Your task to perform on an android device: clear all cookies in the chrome app Image 0: 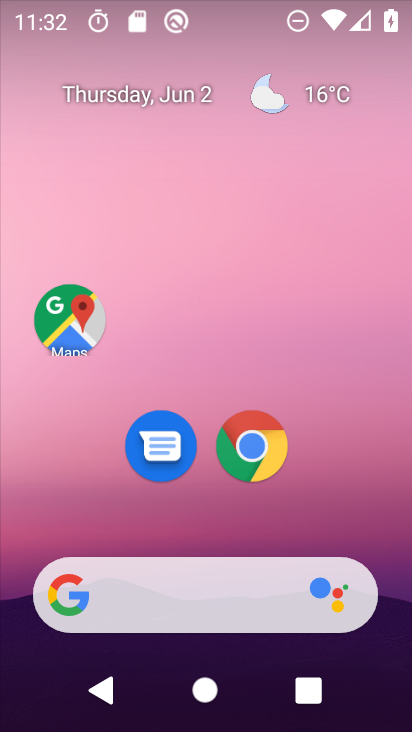
Step 0: drag from (357, 497) to (334, 235)
Your task to perform on an android device: clear all cookies in the chrome app Image 1: 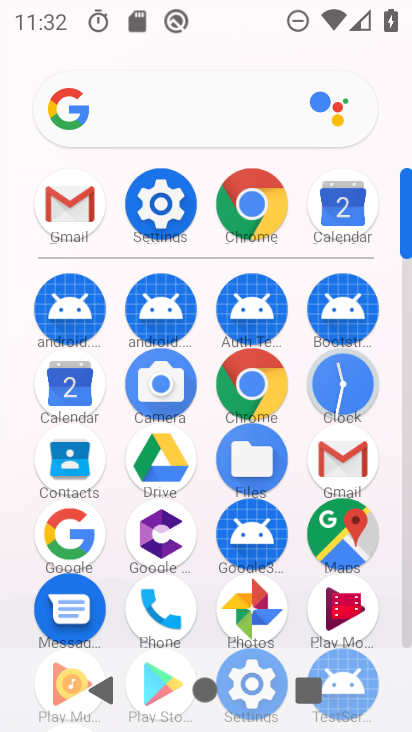
Step 1: click (258, 379)
Your task to perform on an android device: clear all cookies in the chrome app Image 2: 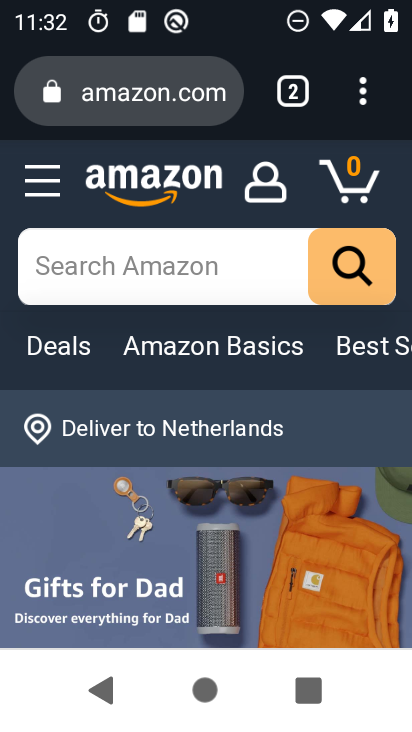
Step 2: click (362, 102)
Your task to perform on an android device: clear all cookies in the chrome app Image 3: 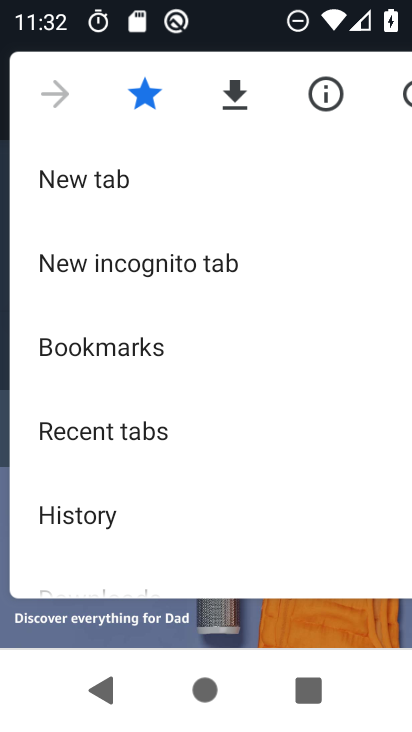
Step 3: drag from (307, 412) to (339, 304)
Your task to perform on an android device: clear all cookies in the chrome app Image 4: 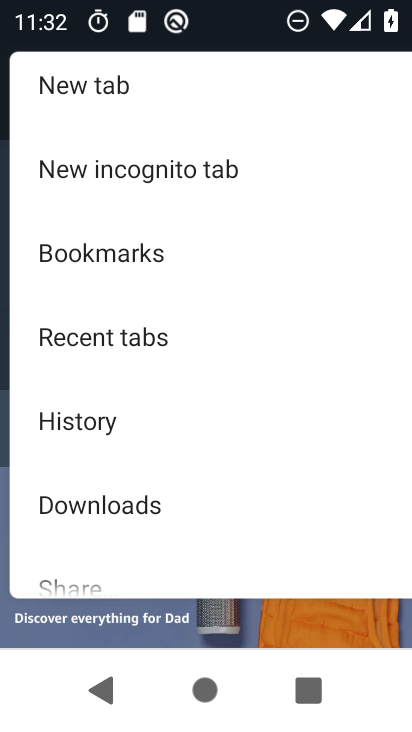
Step 4: drag from (342, 448) to (355, 344)
Your task to perform on an android device: clear all cookies in the chrome app Image 5: 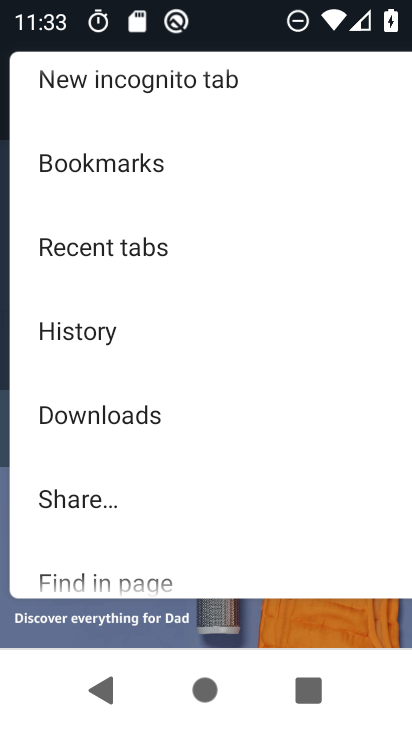
Step 5: drag from (323, 463) to (327, 343)
Your task to perform on an android device: clear all cookies in the chrome app Image 6: 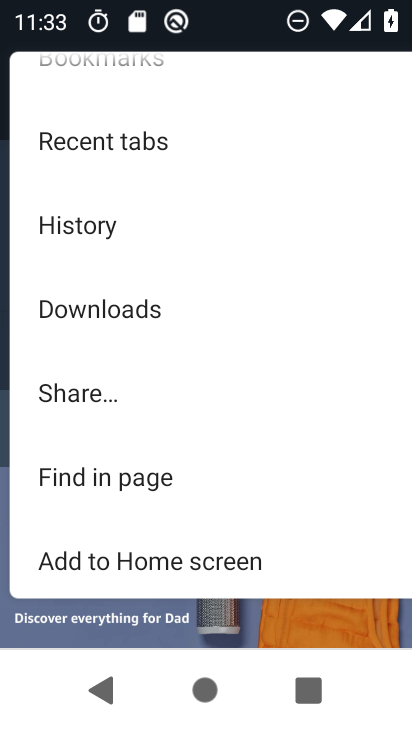
Step 6: drag from (315, 488) to (329, 199)
Your task to perform on an android device: clear all cookies in the chrome app Image 7: 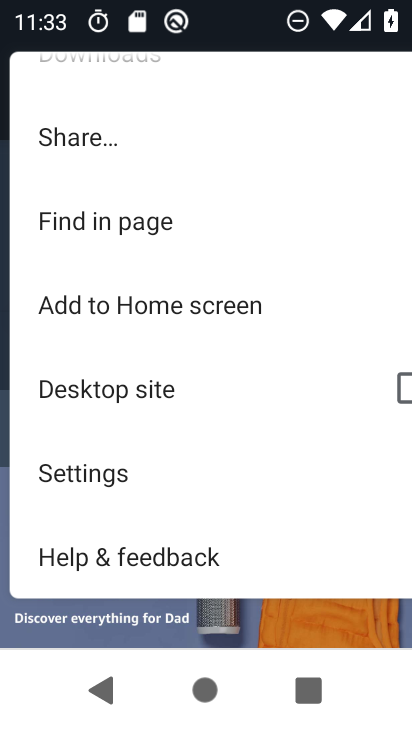
Step 7: click (125, 481)
Your task to perform on an android device: clear all cookies in the chrome app Image 8: 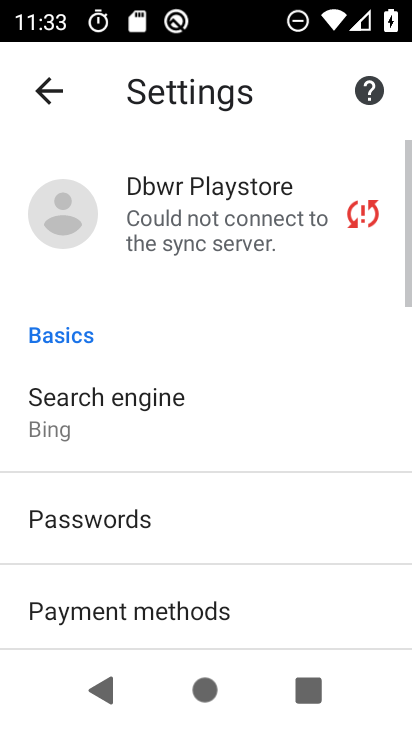
Step 8: drag from (262, 515) to (274, 367)
Your task to perform on an android device: clear all cookies in the chrome app Image 9: 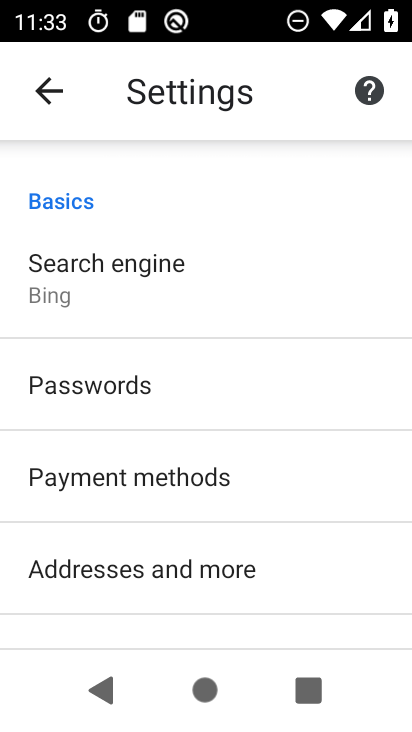
Step 9: drag from (297, 573) to (327, 414)
Your task to perform on an android device: clear all cookies in the chrome app Image 10: 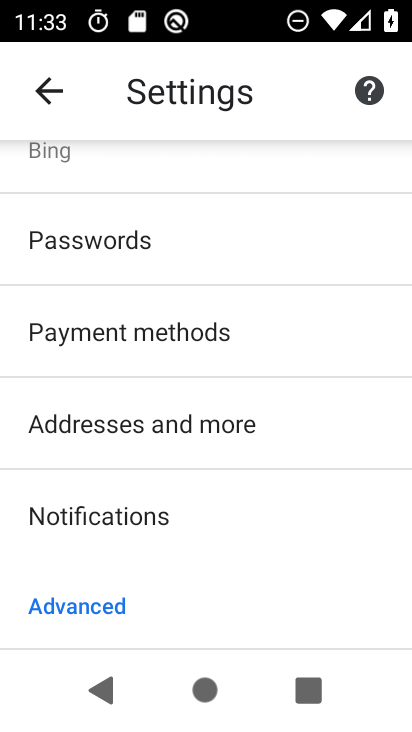
Step 10: drag from (305, 582) to (318, 387)
Your task to perform on an android device: clear all cookies in the chrome app Image 11: 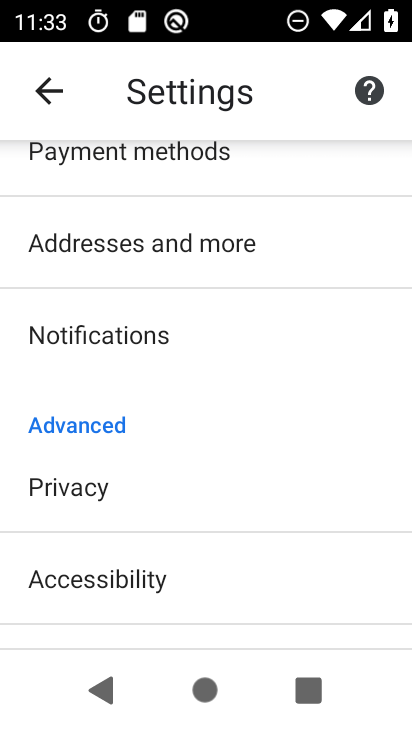
Step 11: click (190, 505)
Your task to perform on an android device: clear all cookies in the chrome app Image 12: 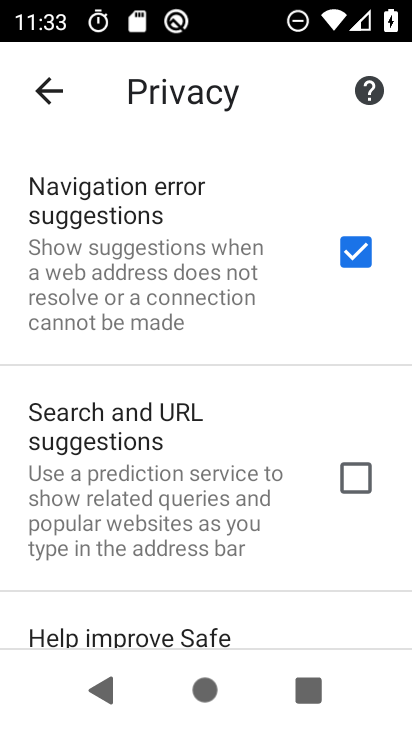
Step 12: drag from (308, 531) to (319, 402)
Your task to perform on an android device: clear all cookies in the chrome app Image 13: 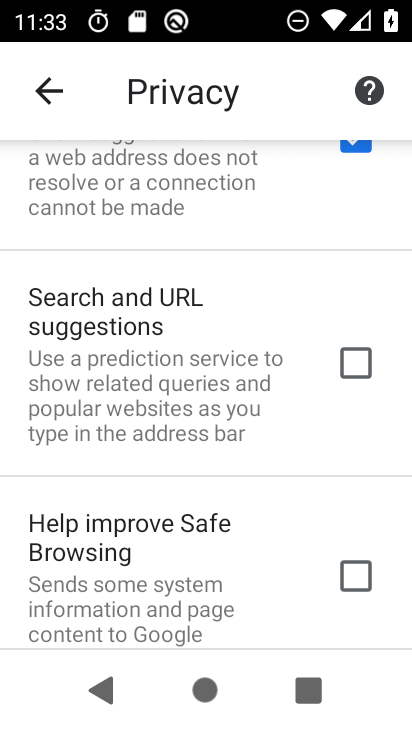
Step 13: drag from (291, 564) to (298, 407)
Your task to perform on an android device: clear all cookies in the chrome app Image 14: 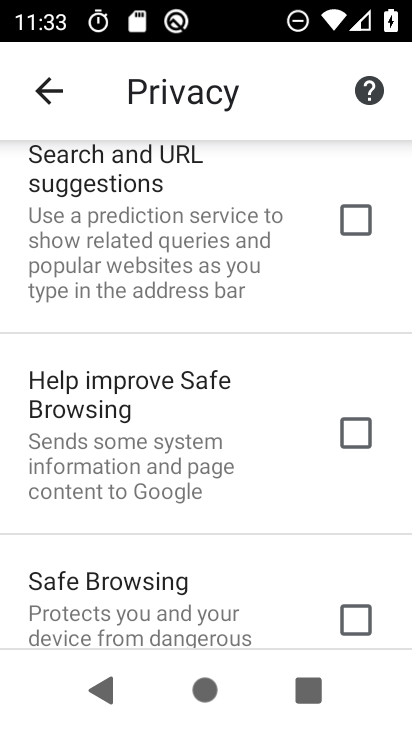
Step 14: drag from (289, 554) to (295, 377)
Your task to perform on an android device: clear all cookies in the chrome app Image 15: 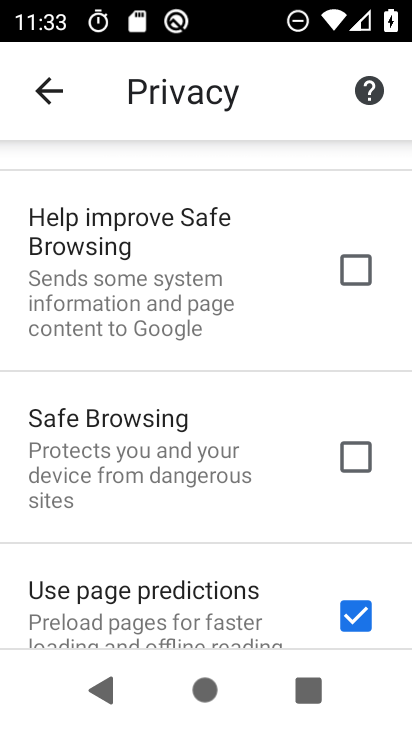
Step 15: drag from (275, 589) to (286, 417)
Your task to perform on an android device: clear all cookies in the chrome app Image 16: 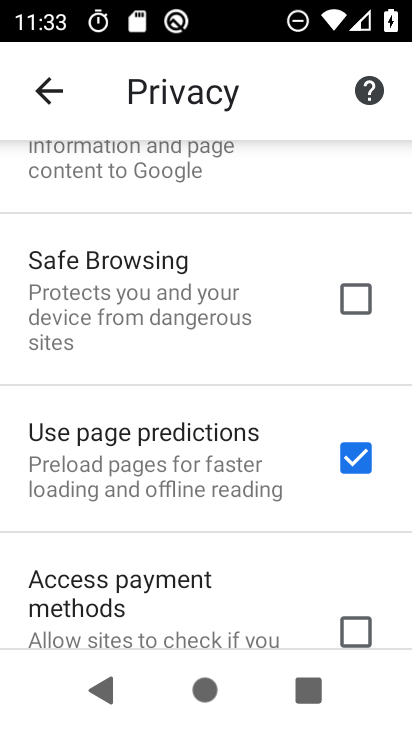
Step 16: drag from (270, 571) to (286, 436)
Your task to perform on an android device: clear all cookies in the chrome app Image 17: 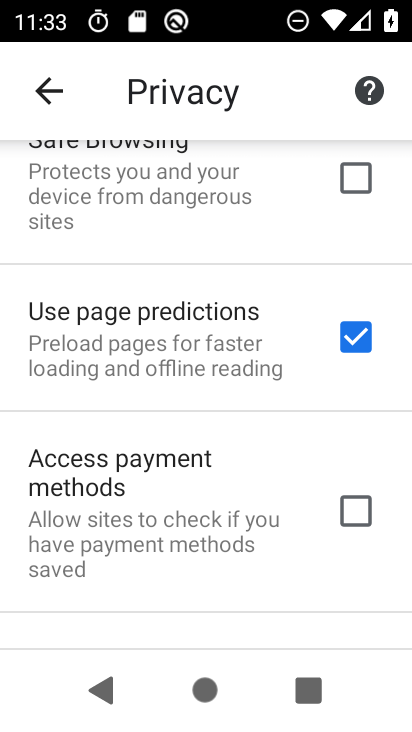
Step 17: drag from (289, 591) to (281, 350)
Your task to perform on an android device: clear all cookies in the chrome app Image 18: 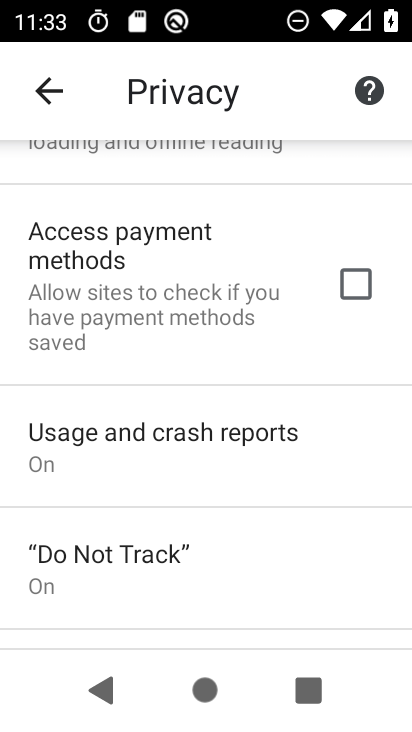
Step 18: drag from (235, 567) to (263, 341)
Your task to perform on an android device: clear all cookies in the chrome app Image 19: 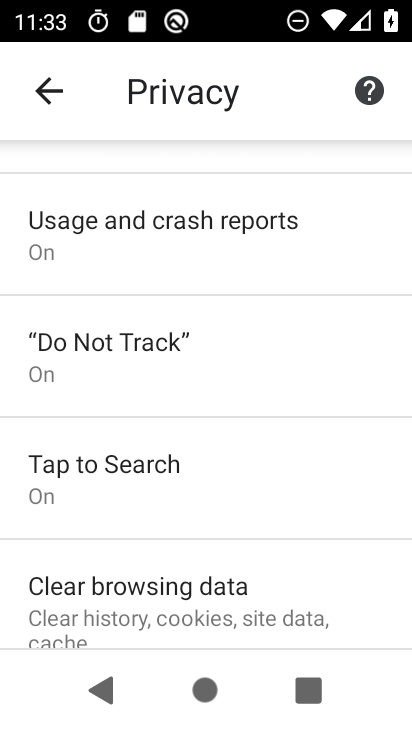
Step 19: click (225, 610)
Your task to perform on an android device: clear all cookies in the chrome app Image 20: 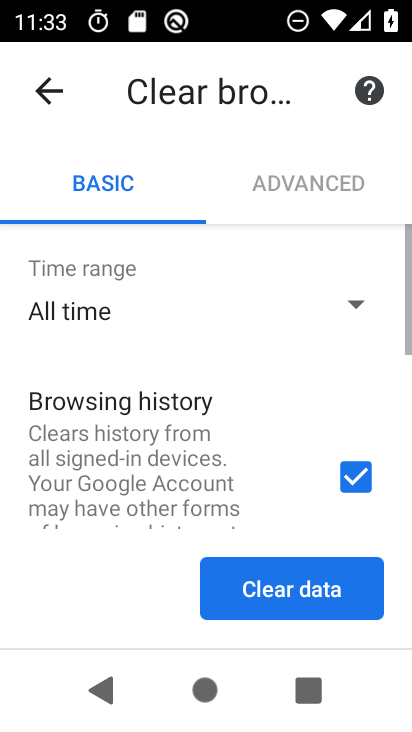
Step 20: click (274, 590)
Your task to perform on an android device: clear all cookies in the chrome app Image 21: 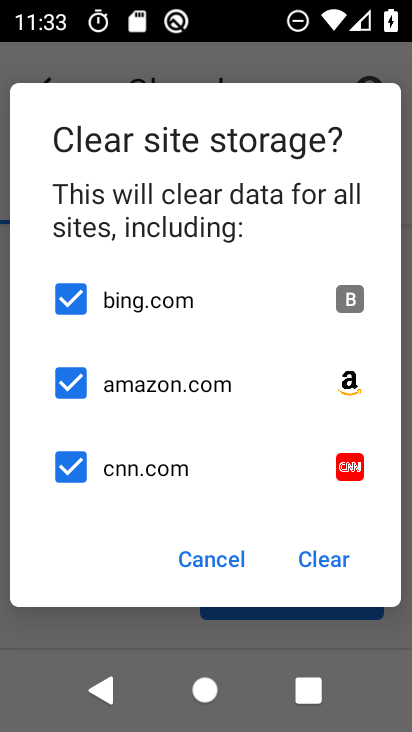
Step 21: click (331, 567)
Your task to perform on an android device: clear all cookies in the chrome app Image 22: 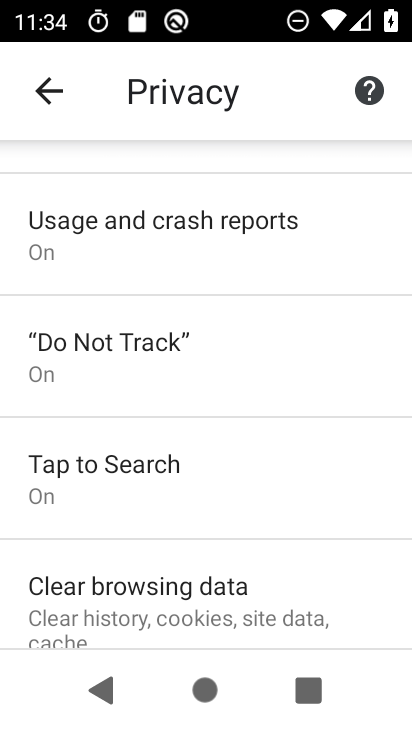
Step 22: task complete